Your task to perform on an android device: Open network settings Image 0: 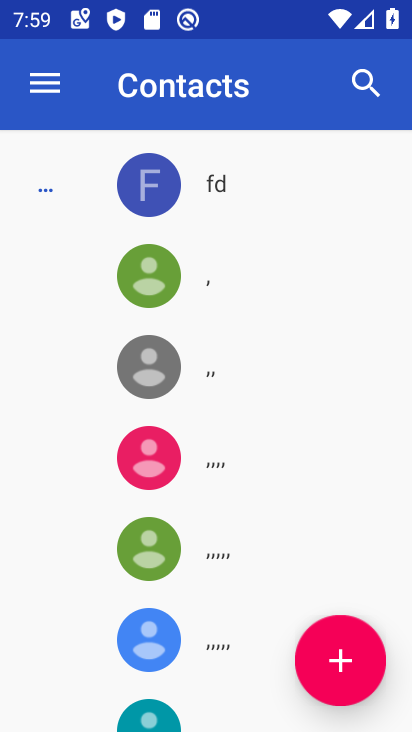
Step 0: press home button
Your task to perform on an android device: Open network settings Image 1: 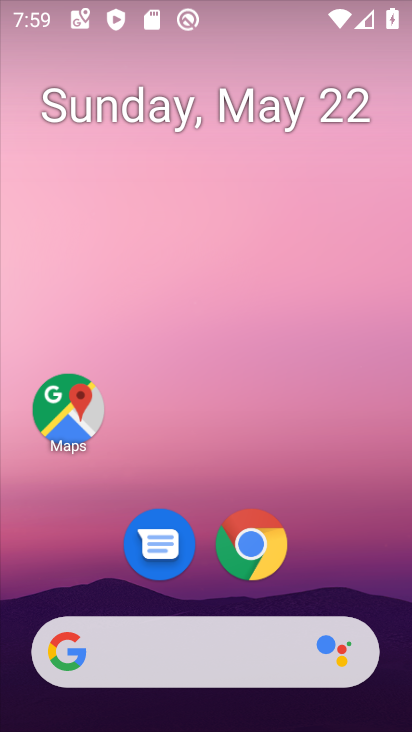
Step 1: drag from (289, 575) to (323, 206)
Your task to perform on an android device: Open network settings Image 2: 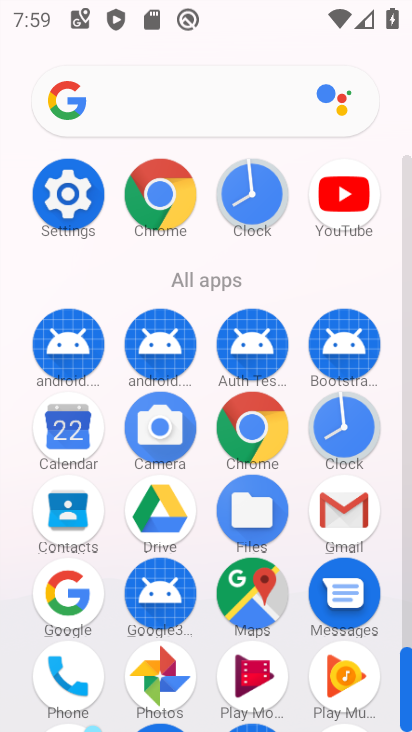
Step 2: click (39, 192)
Your task to perform on an android device: Open network settings Image 3: 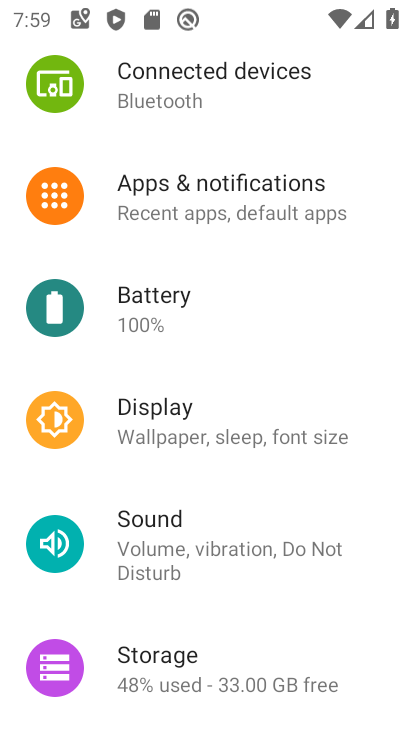
Step 3: drag from (231, 370) to (200, 715)
Your task to perform on an android device: Open network settings Image 4: 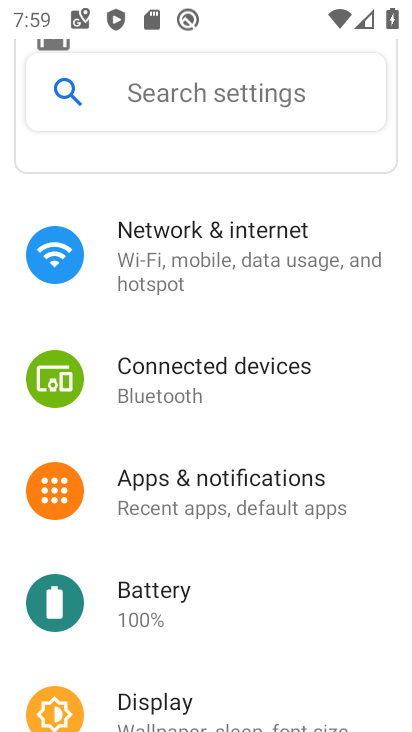
Step 4: click (235, 250)
Your task to perform on an android device: Open network settings Image 5: 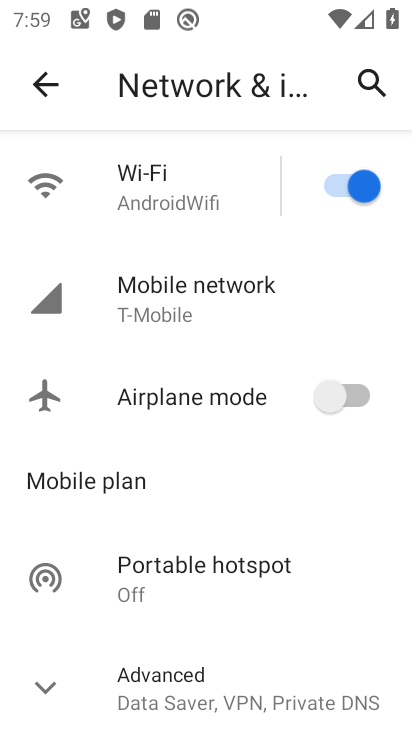
Step 5: task complete